Your task to perform on an android device: change the upload size in google photos Image 0: 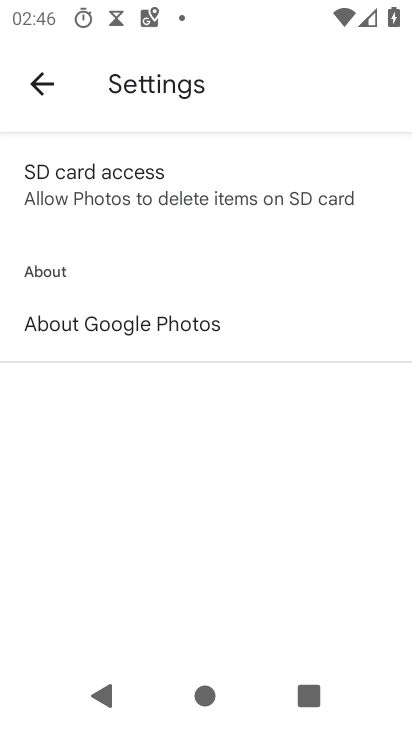
Step 0: press home button
Your task to perform on an android device: change the upload size in google photos Image 1: 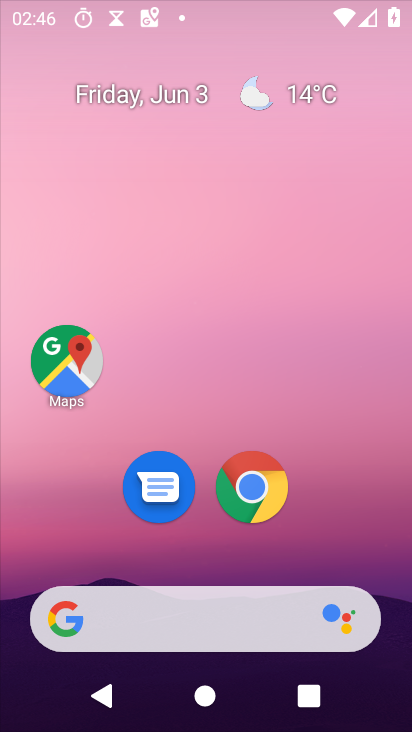
Step 1: drag from (252, 108) to (240, 48)
Your task to perform on an android device: change the upload size in google photos Image 2: 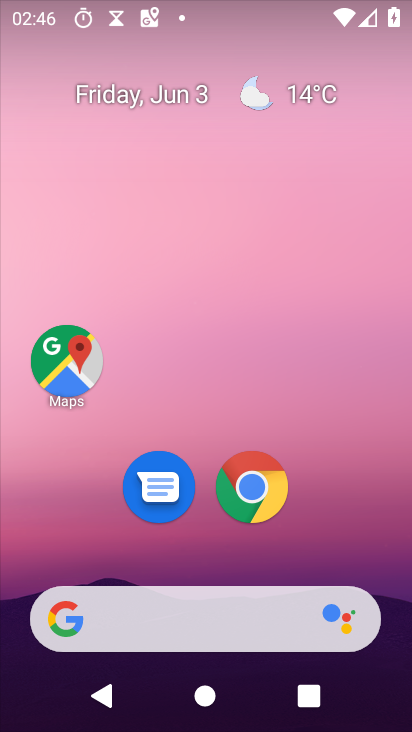
Step 2: drag from (360, 532) to (148, 45)
Your task to perform on an android device: change the upload size in google photos Image 3: 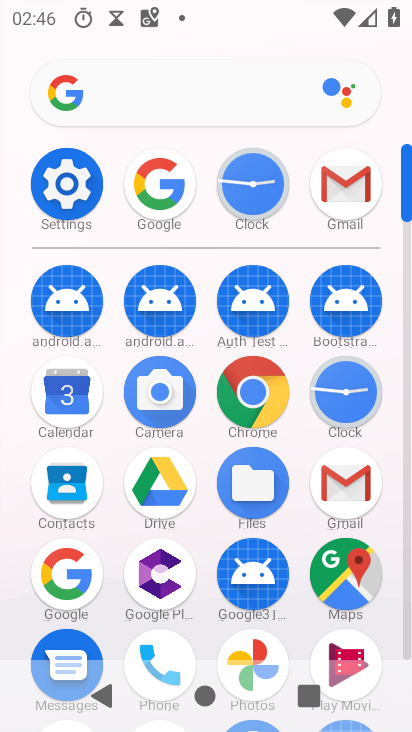
Step 3: click (262, 652)
Your task to perform on an android device: change the upload size in google photos Image 4: 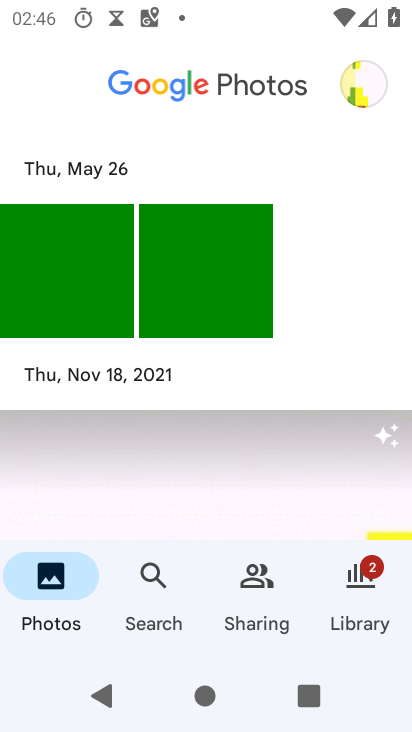
Step 4: click (362, 80)
Your task to perform on an android device: change the upload size in google photos Image 5: 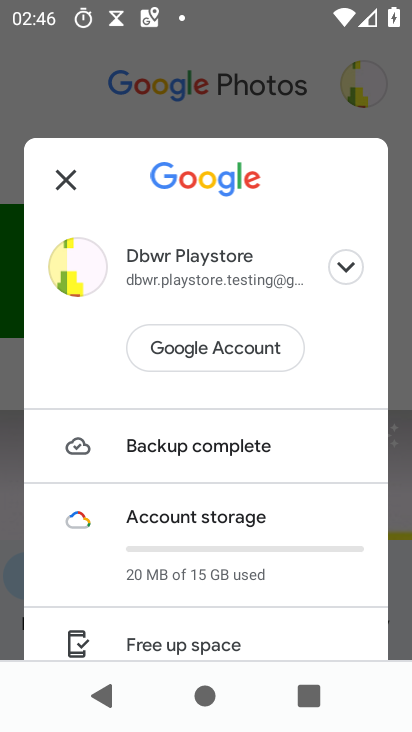
Step 5: drag from (219, 577) to (235, 85)
Your task to perform on an android device: change the upload size in google photos Image 6: 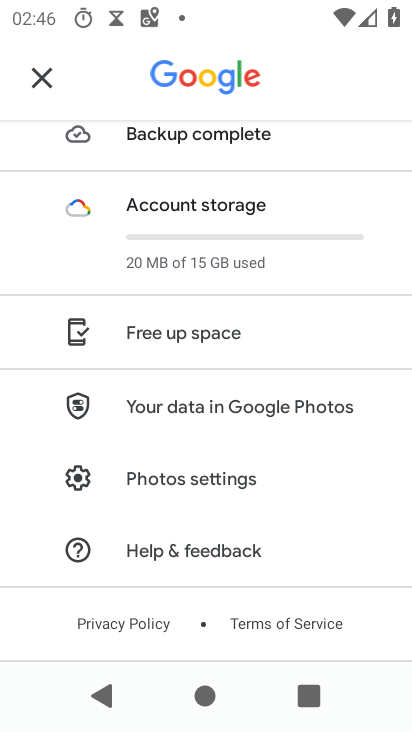
Step 6: click (227, 497)
Your task to perform on an android device: change the upload size in google photos Image 7: 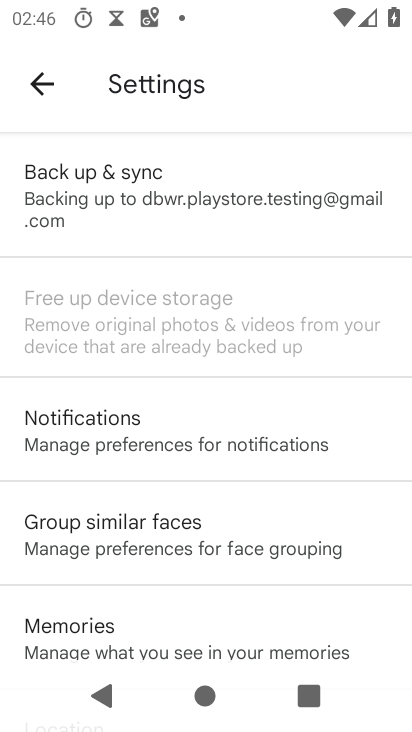
Step 7: drag from (208, 484) to (165, 65)
Your task to perform on an android device: change the upload size in google photos Image 8: 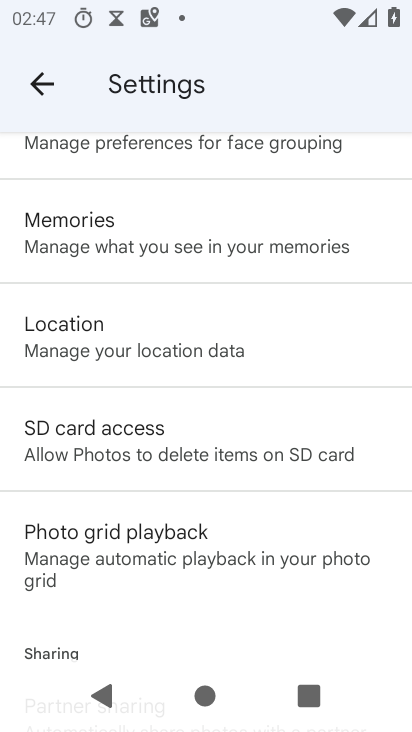
Step 8: drag from (179, 265) to (160, 614)
Your task to perform on an android device: change the upload size in google photos Image 9: 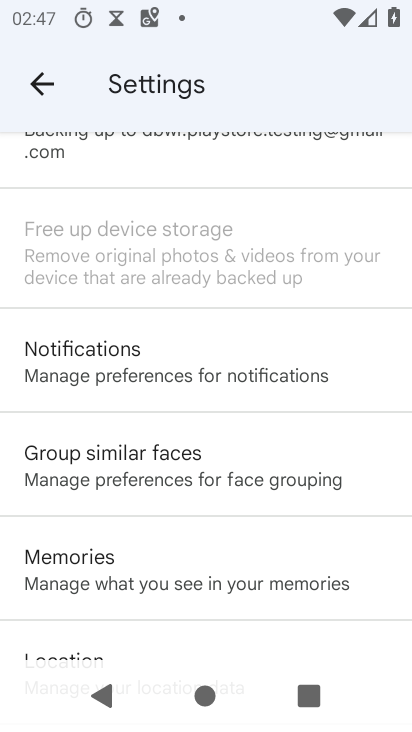
Step 9: drag from (112, 164) to (115, 516)
Your task to perform on an android device: change the upload size in google photos Image 10: 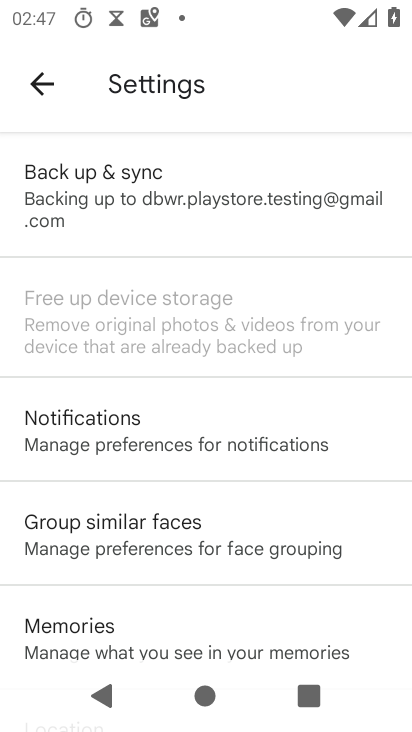
Step 10: click (118, 197)
Your task to perform on an android device: change the upload size in google photos Image 11: 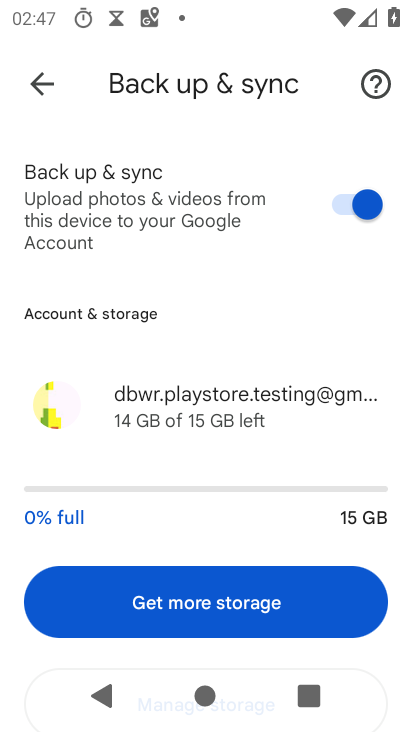
Step 11: drag from (179, 372) to (173, 68)
Your task to perform on an android device: change the upload size in google photos Image 12: 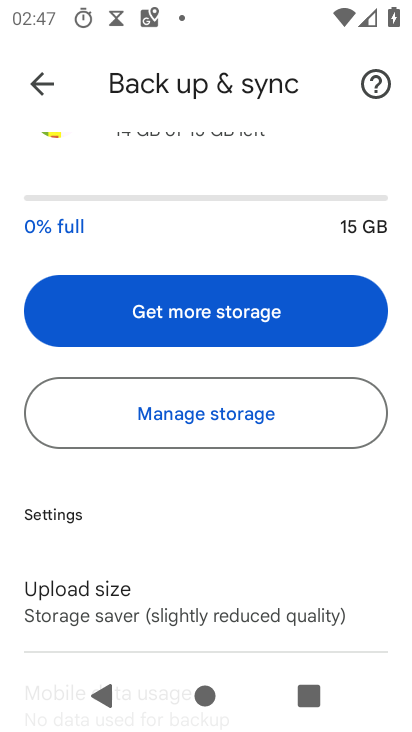
Step 12: drag from (177, 552) to (184, 237)
Your task to perform on an android device: change the upload size in google photos Image 13: 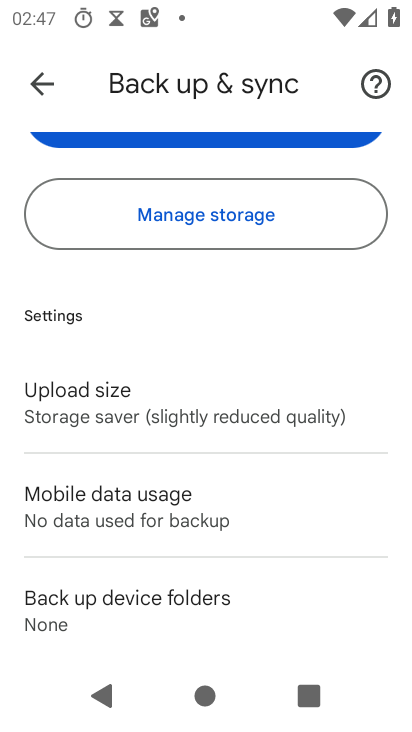
Step 13: click (147, 409)
Your task to perform on an android device: change the upload size in google photos Image 14: 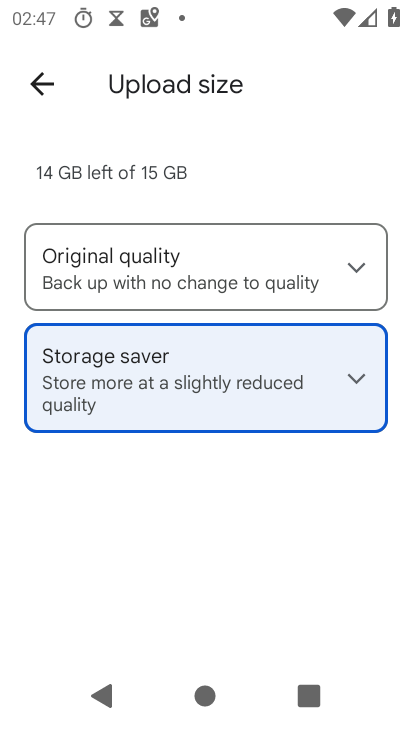
Step 14: click (174, 292)
Your task to perform on an android device: change the upload size in google photos Image 15: 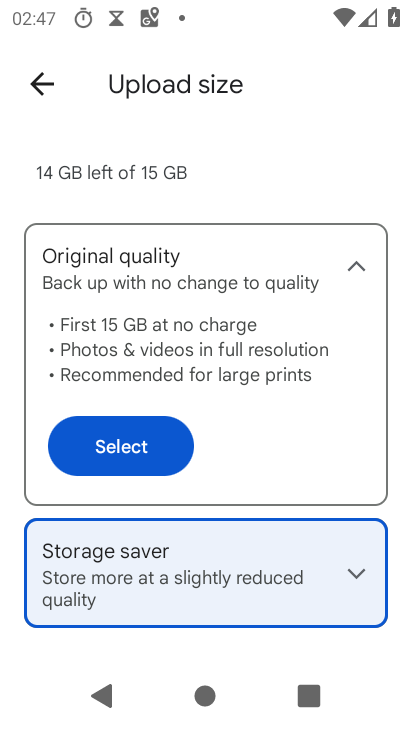
Step 15: click (104, 455)
Your task to perform on an android device: change the upload size in google photos Image 16: 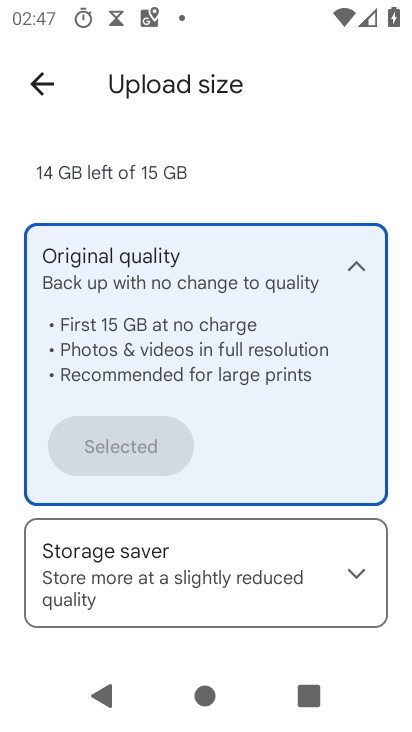
Step 16: task complete